Your task to perform on an android device: change timer sound Image 0: 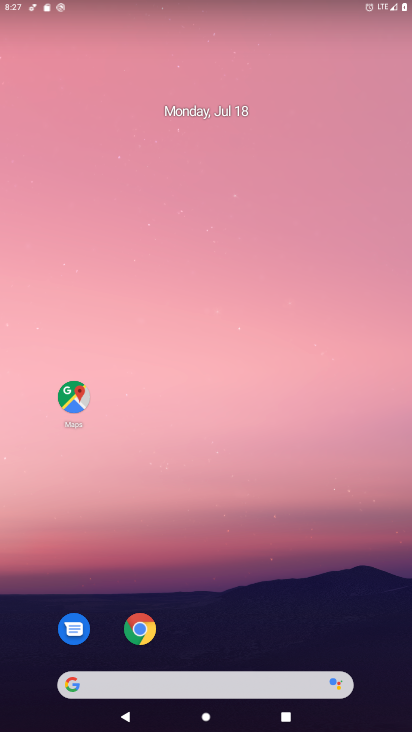
Step 0: drag from (214, 586) to (179, 63)
Your task to perform on an android device: change timer sound Image 1: 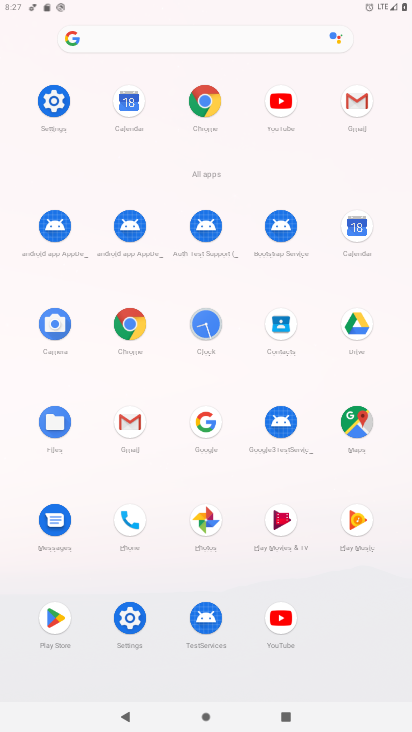
Step 1: click (194, 340)
Your task to perform on an android device: change timer sound Image 2: 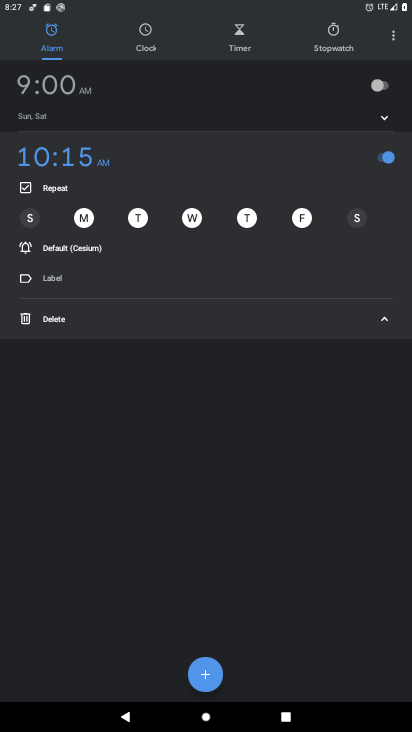
Step 2: click (396, 35)
Your task to perform on an android device: change timer sound Image 3: 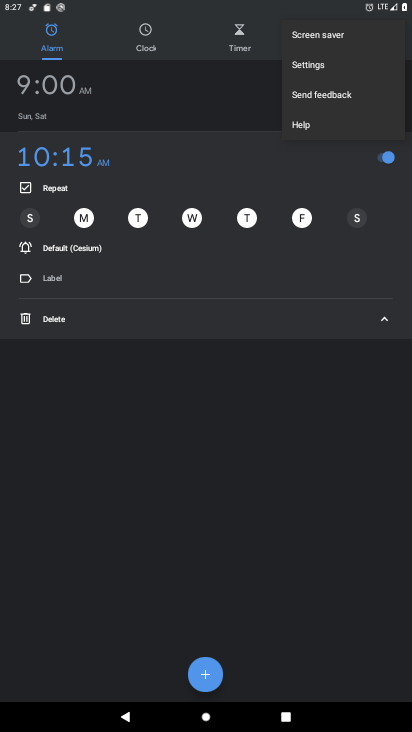
Step 3: click (314, 71)
Your task to perform on an android device: change timer sound Image 4: 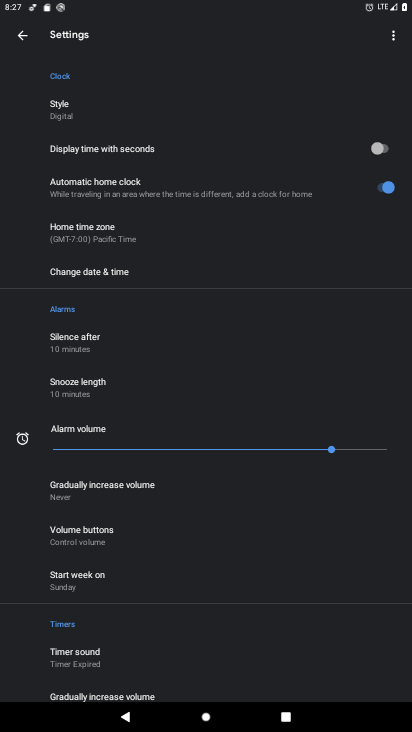
Step 4: click (91, 658)
Your task to perform on an android device: change timer sound Image 5: 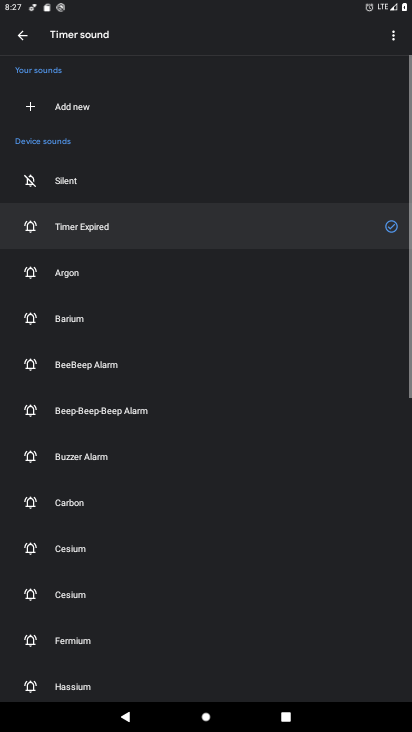
Step 5: click (84, 460)
Your task to perform on an android device: change timer sound Image 6: 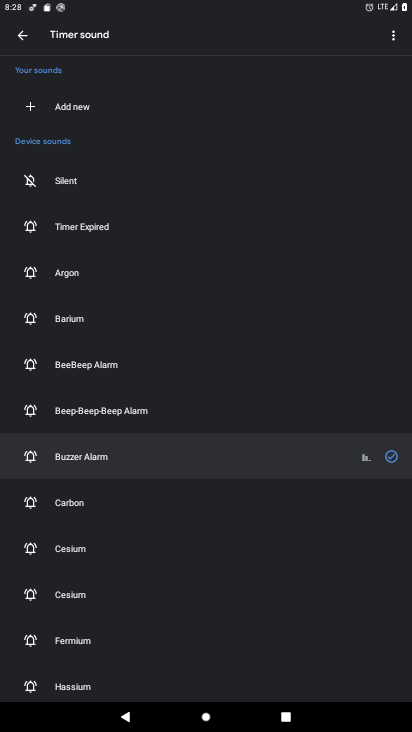
Step 6: task complete